Your task to perform on an android device: change your default location settings in chrome Image 0: 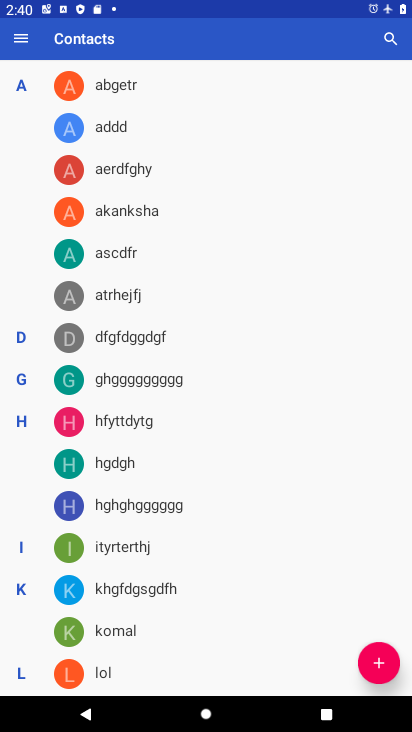
Step 0: press home button
Your task to perform on an android device: change your default location settings in chrome Image 1: 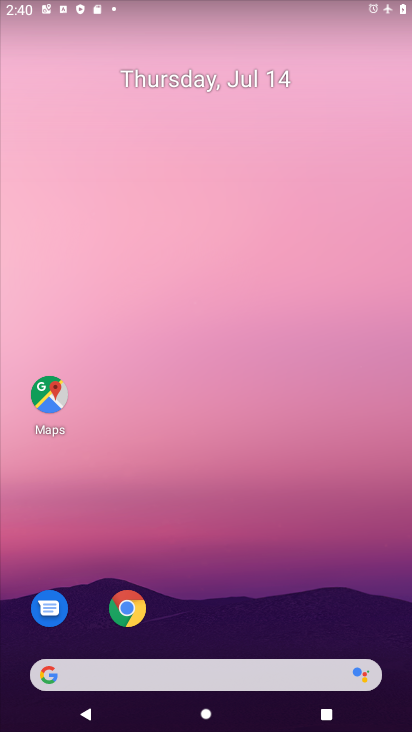
Step 1: click (125, 608)
Your task to perform on an android device: change your default location settings in chrome Image 2: 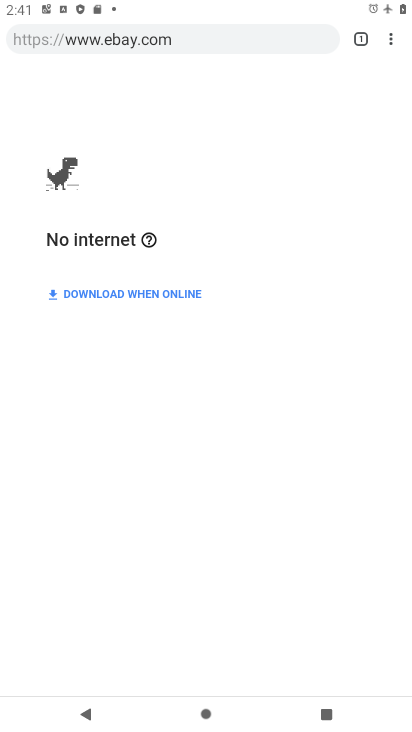
Step 2: click (390, 40)
Your task to perform on an android device: change your default location settings in chrome Image 3: 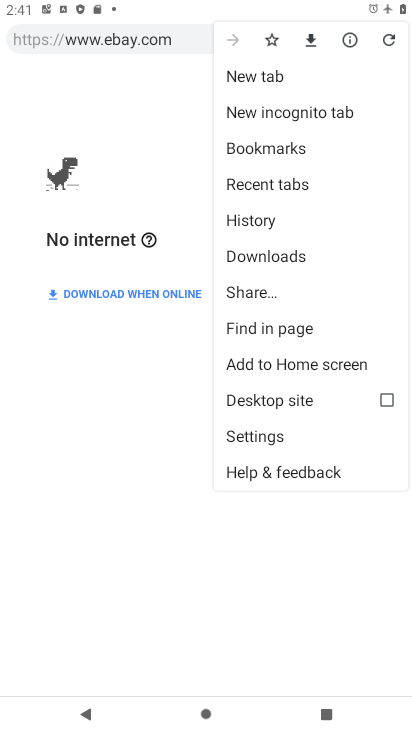
Step 3: click (247, 432)
Your task to perform on an android device: change your default location settings in chrome Image 4: 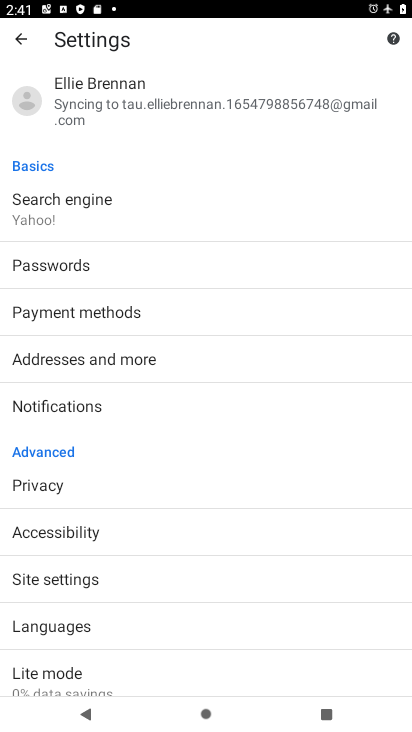
Step 4: click (52, 586)
Your task to perform on an android device: change your default location settings in chrome Image 5: 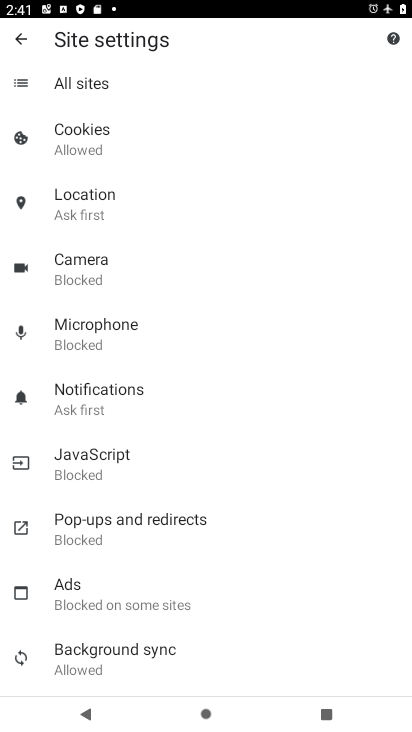
Step 5: click (70, 188)
Your task to perform on an android device: change your default location settings in chrome Image 6: 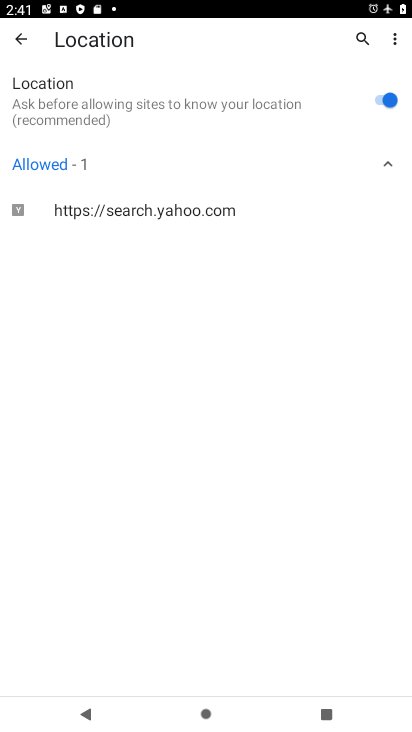
Step 6: click (376, 101)
Your task to perform on an android device: change your default location settings in chrome Image 7: 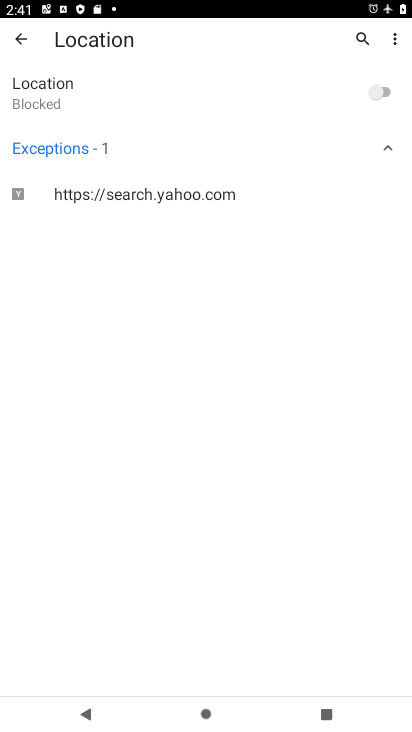
Step 7: task complete